Your task to perform on an android device: turn off sleep mode Image 0: 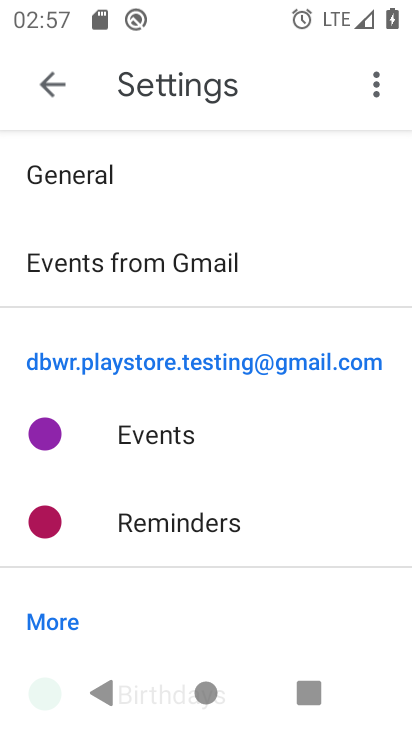
Step 0: press home button
Your task to perform on an android device: turn off sleep mode Image 1: 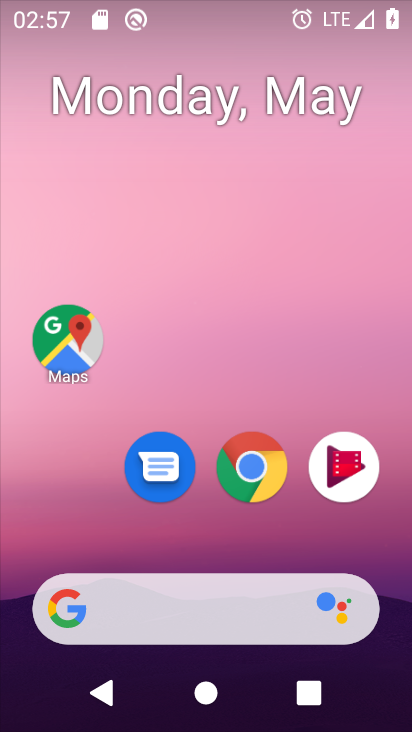
Step 1: drag from (186, 504) to (249, 172)
Your task to perform on an android device: turn off sleep mode Image 2: 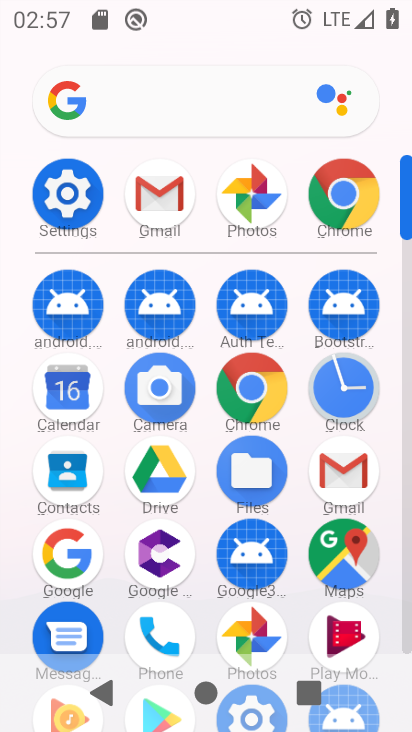
Step 2: click (77, 181)
Your task to perform on an android device: turn off sleep mode Image 3: 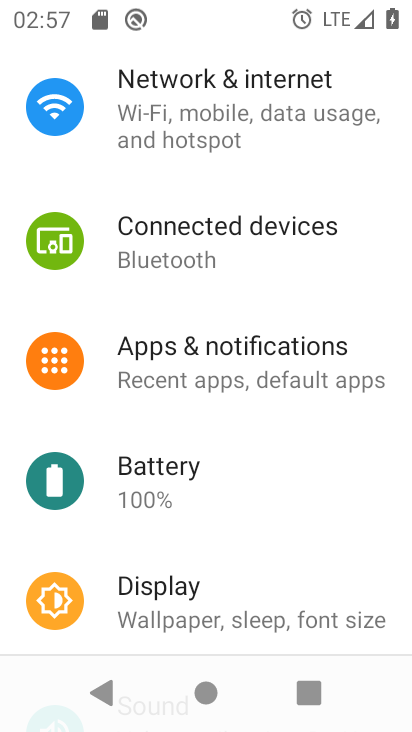
Step 3: task complete